Your task to perform on an android device: Go to battery settings Image 0: 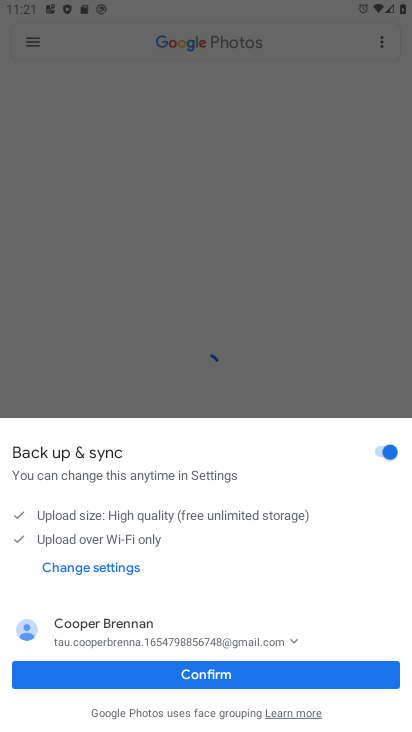
Step 0: press home button
Your task to perform on an android device: Go to battery settings Image 1: 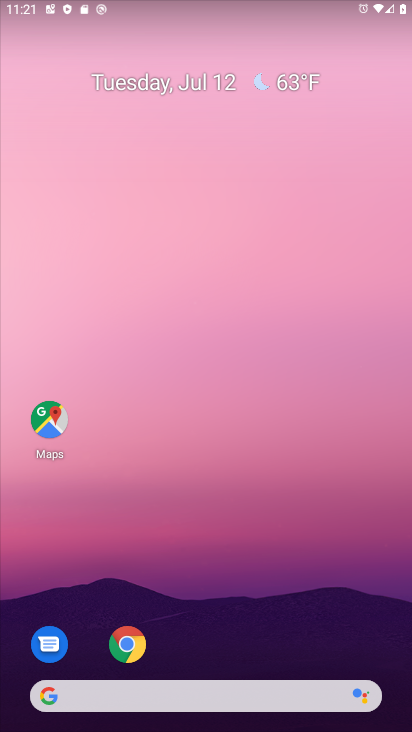
Step 1: drag from (206, 696) to (219, 250)
Your task to perform on an android device: Go to battery settings Image 2: 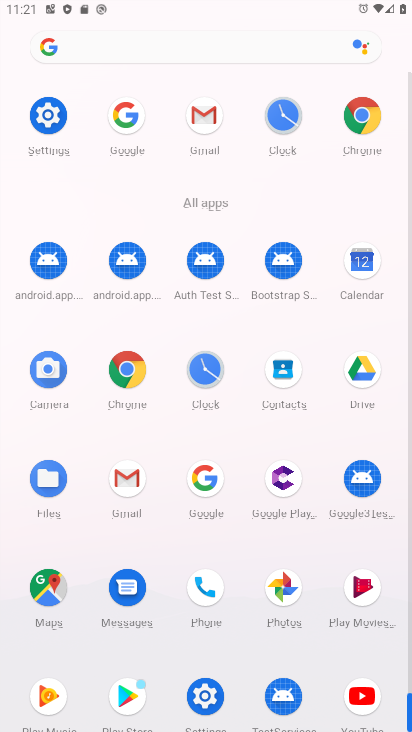
Step 2: click (48, 115)
Your task to perform on an android device: Go to battery settings Image 3: 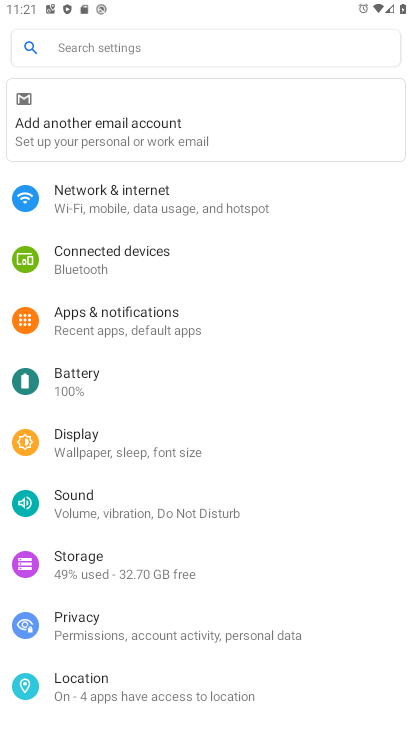
Step 3: click (91, 378)
Your task to perform on an android device: Go to battery settings Image 4: 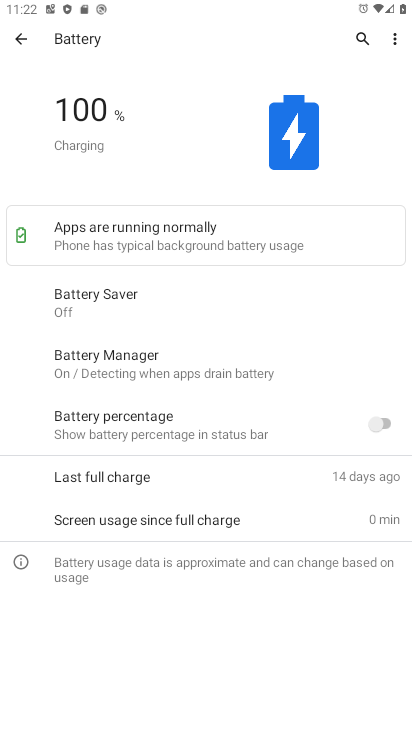
Step 4: task complete